Your task to perform on an android device: delete the emails in spam in the gmail app Image 0: 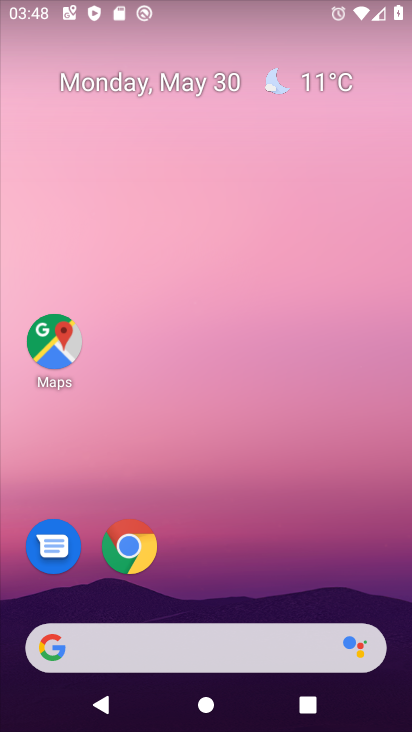
Step 0: drag from (212, 594) to (223, 67)
Your task to perform on an android device: delete the emails in spam in the gmail app Image 1: 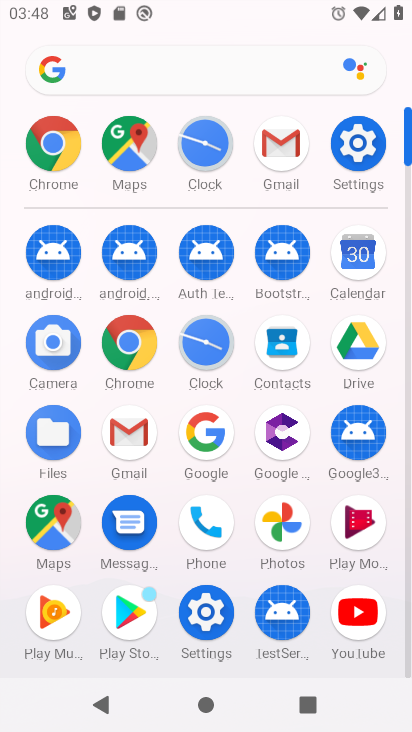
Step 1: click (273, 133)
Your task to perform on an android device: delete the emails in spam in the gmail app Image 2: 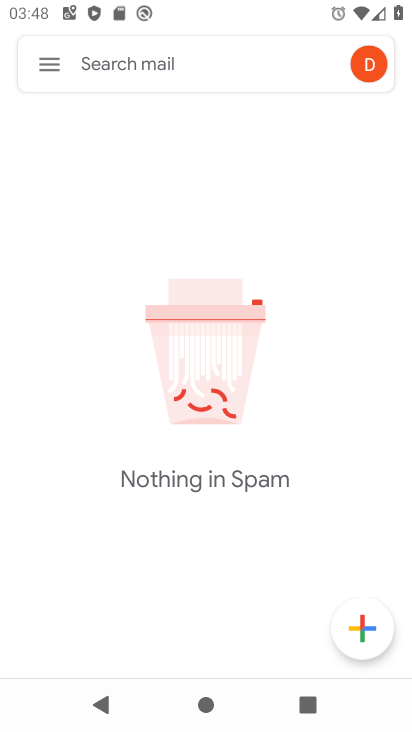
Step 2: click (51, 64)
Your task to perform on an android device: delete the emails in spam in the gmail app Image 3: 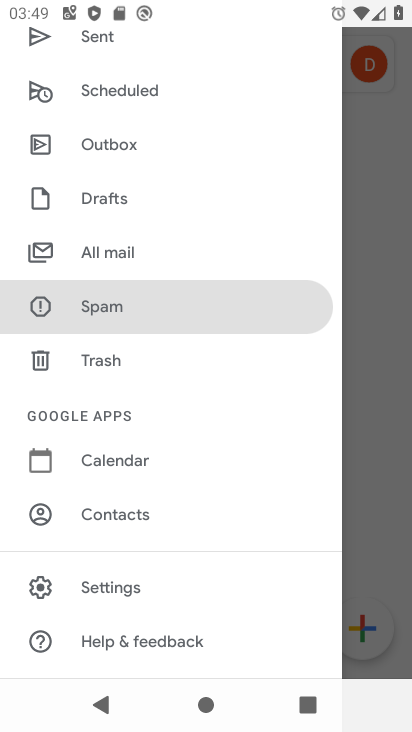
Step 3: click (67, 298)
Your task to perform on an android device: delete the emails in spam in the gmail app Image 4: 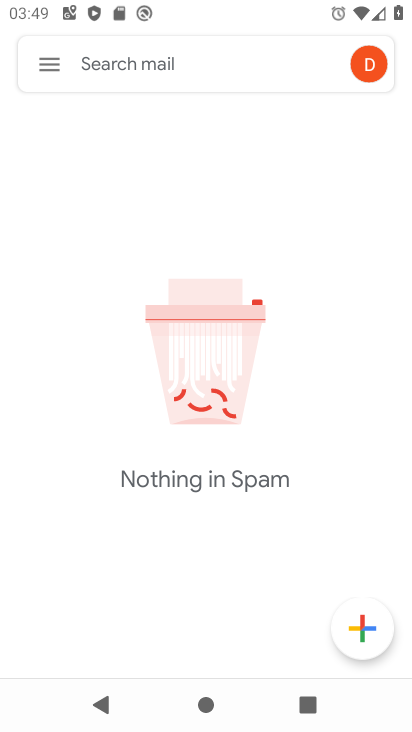
Step 4: task complete